Your task to perform on an android device: When is my next appointment? Image 0: 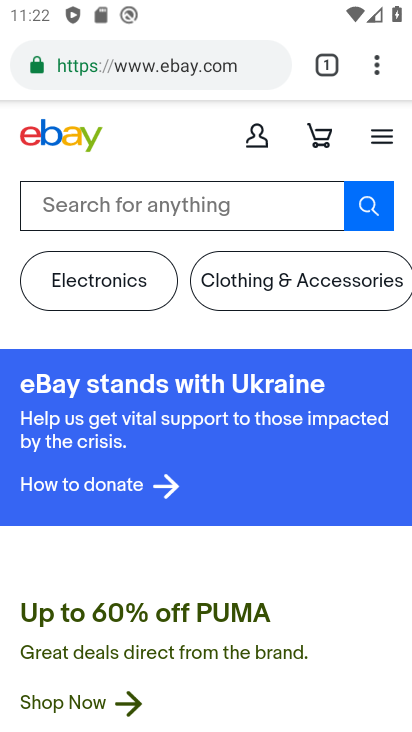
Step 0: press home button
Your task to perform on an android device: When is my next appointment? Image 1: 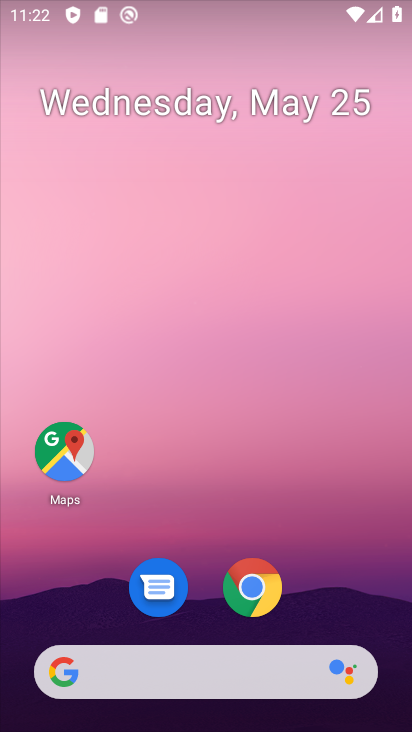
Step 1: drag from (286, 700) to (255, 131)
Your task to perform on an android device: When is my next appointment? Image 2: 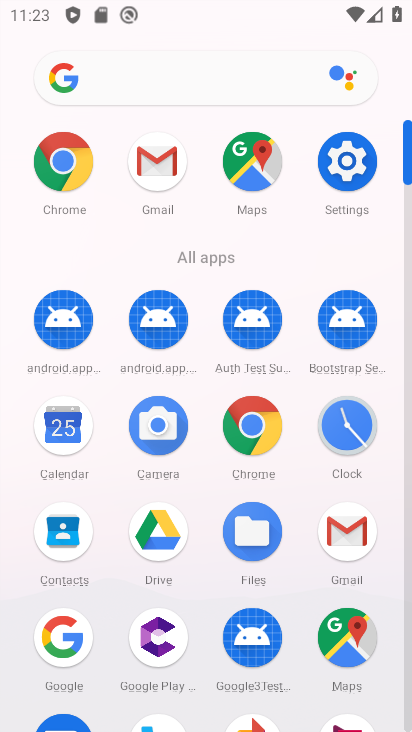
Step 2: click (69, 435)
Your task to perform on an android device: When is my next appointment? Image 3: 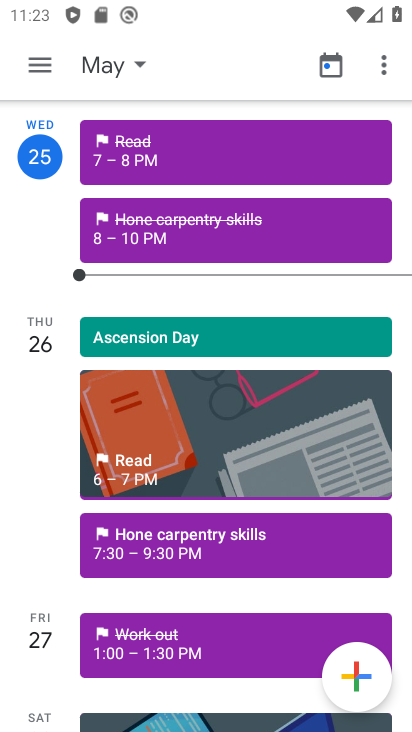
Step 3: task complete